Your task to perform on an android device: toggle translation in the chrome app Image 0: 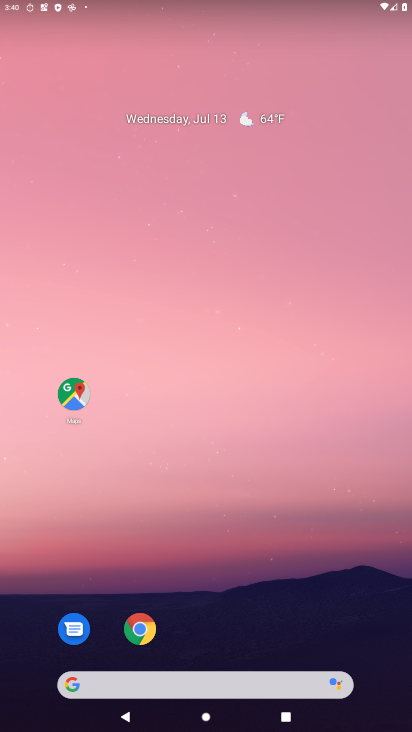
Step 0: drag from (289, 666) to (325, 4)
Your task to perform on an android device: toggle translation in the chrome app Image 1: 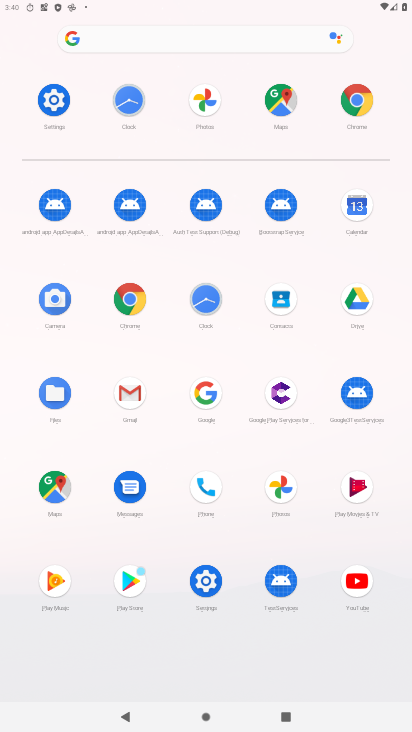
Step 1: click (118, 295)
Your task to perform on an android device: toggle translation in the chrome app Image 2: 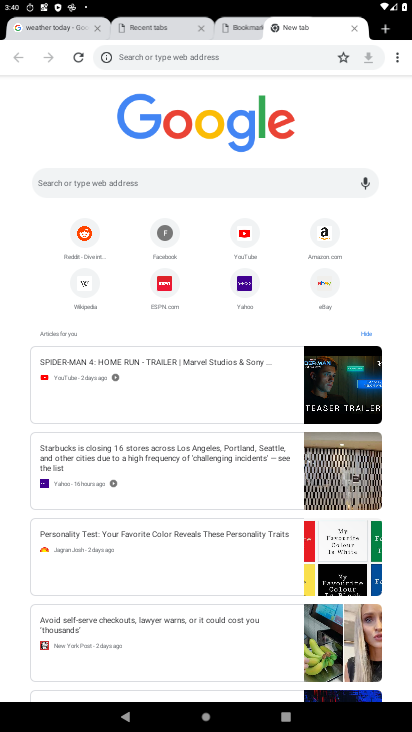
Step 2: drag from (397, 57) to (310, 266)
Your task to perform on an android device: toggle translation in the chrome app Image 3: 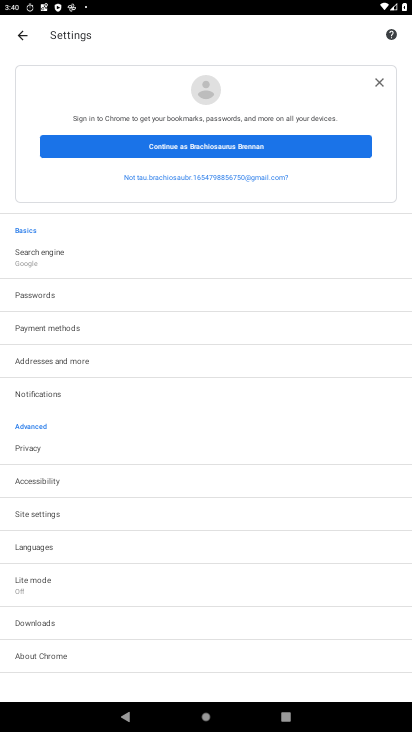
Step 3: drag from (226, 672) to (224, 343)
Your task to perform on an android device: toggle translation in the chrome app Image 4: 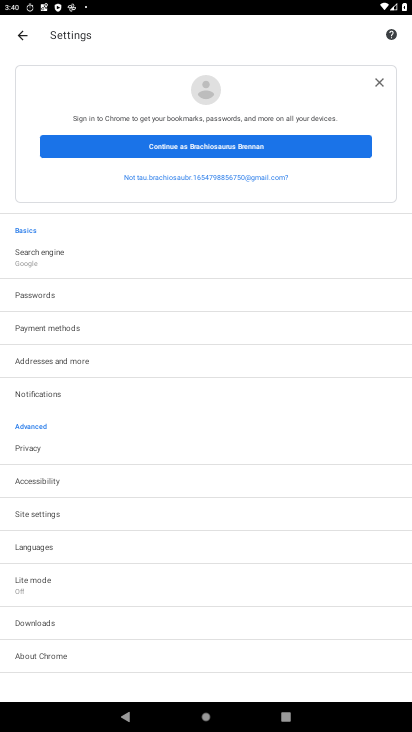
Step 4: click (64, 544)
Your task to perform on an android device: toggle translation in the chrome app Image 5: 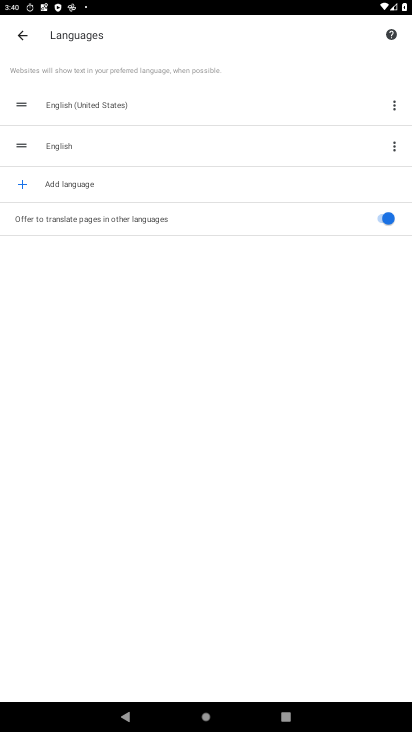
Step 5: click (385, 219)
Your task to perform on an android device: toggle translation in the chrome app Image 6: 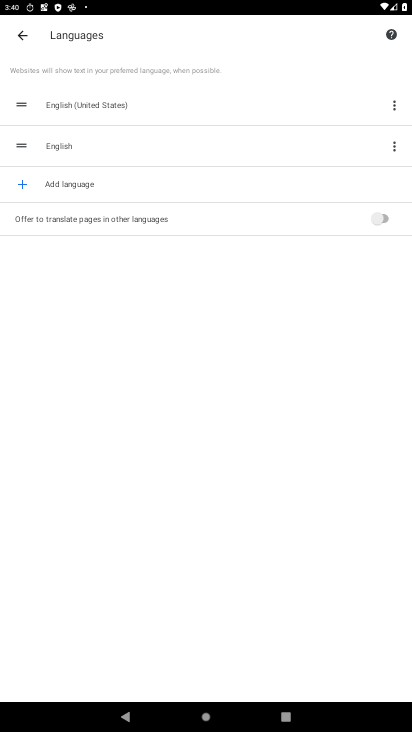
Step 6: task complete